Your task to perform on an android device: Set the phone to "Do not disturb". Image 0: 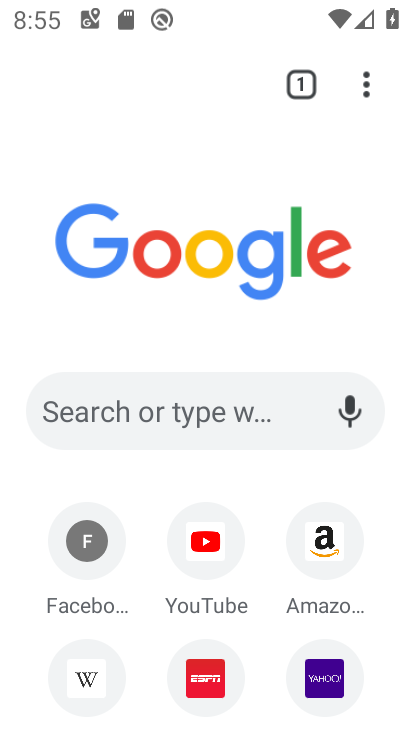
Step 0: drag from (271, 4) to (345, 595)
Your task to perform on an android device: Set the phone to "Do not disturb". Image 1: 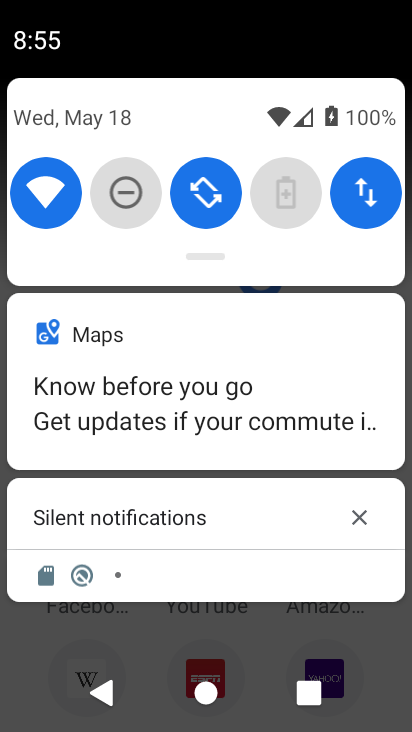
Step 1: click (133, 179)
Your task to perform on an android device: Set the phone to "Do not disturb". Image 2: 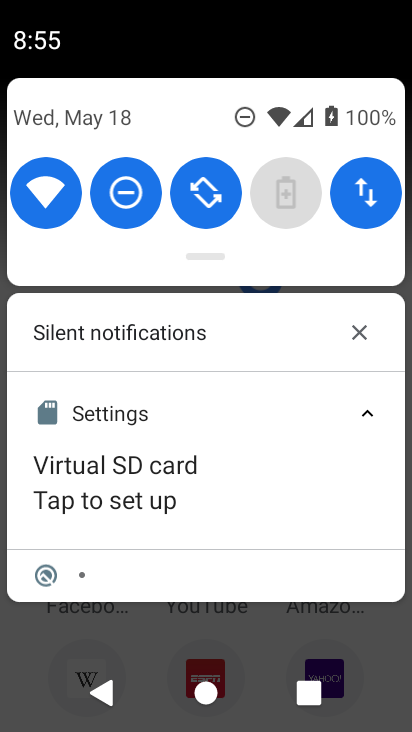
Step 2: task complete